Your task to perform on an android device: open a bookmark in the chrome app Image 0: 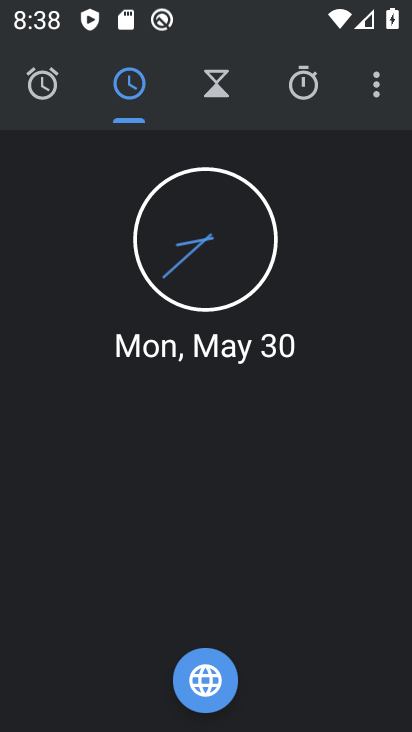
Step 0: press home button
Your task to perform on an android device: open a bookmark in the chrome app Image 1: 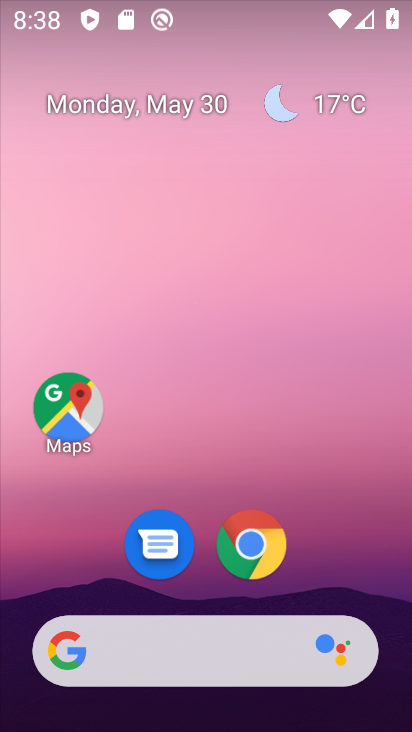
Step 1: click (251, 544)
Your task to perform on an android device: open a bookmark in the chrome app Image 2: 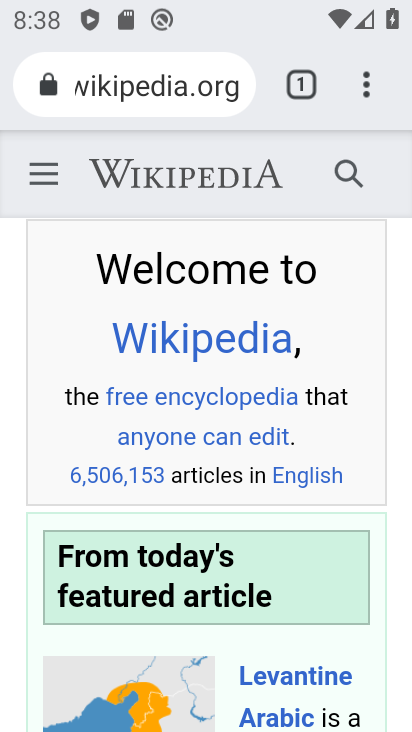
Step 2: click (367, 83)
Your task to perform on an android device: open a bookmark in the chrome app Image 3: 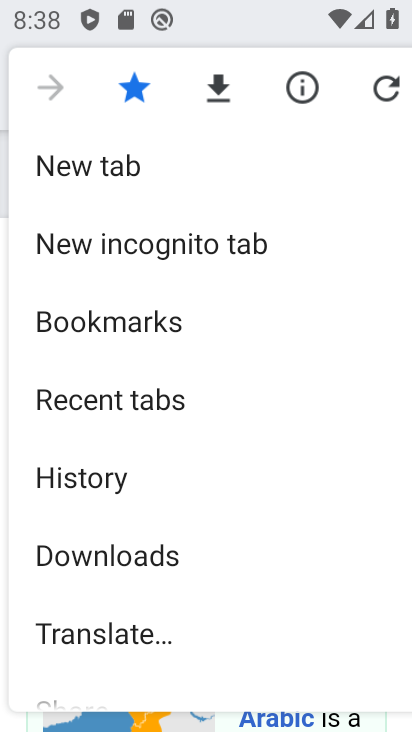
Step 3: click (140, 324)
Your task to perform on an android device: open a bookmark in the chrome app Image 4: 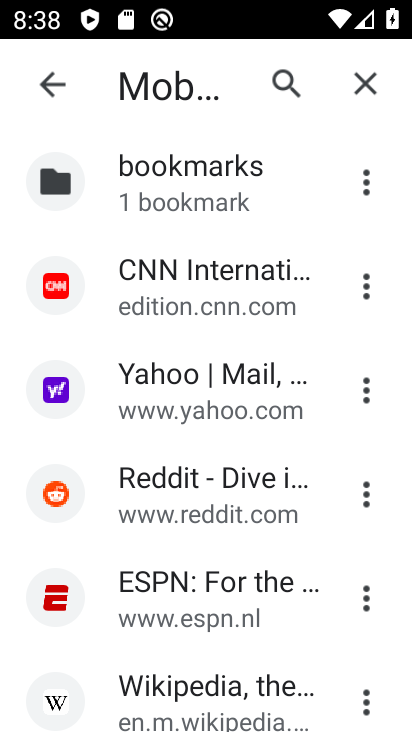
Step 4: task complete